Your task to perform on an android device: Open the map Image 0: 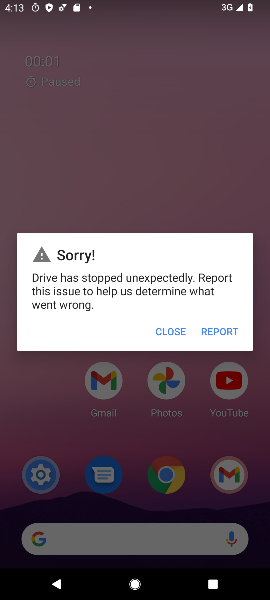
Step 0: press home button
Your task to perform on an android device: Open the map Image 1: 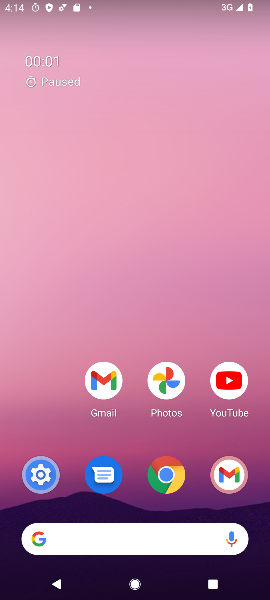
Step 1: drag from (52, 556) to (54, 355)
Your task to perform on an android device: Open the map Image 2: 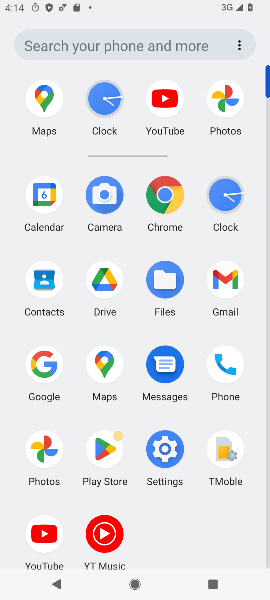
Step 2: click (100, 368)
Your task to perform on an android device: Open the map Image 3: 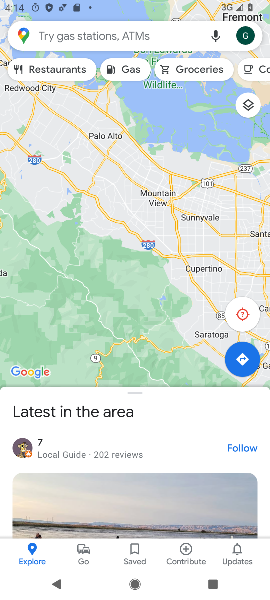
Step 3: task complete